Your task to perform on an android device: Check the weather Image 0: 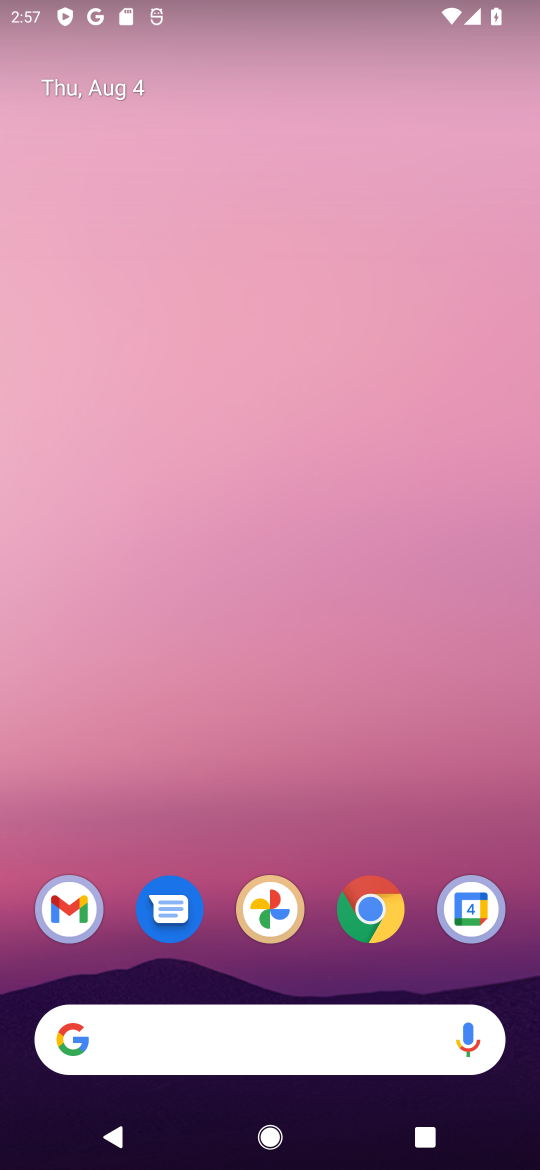
Step 0: click (197, 1035)
Your task to perform on an android device: Check the weather Image 1: 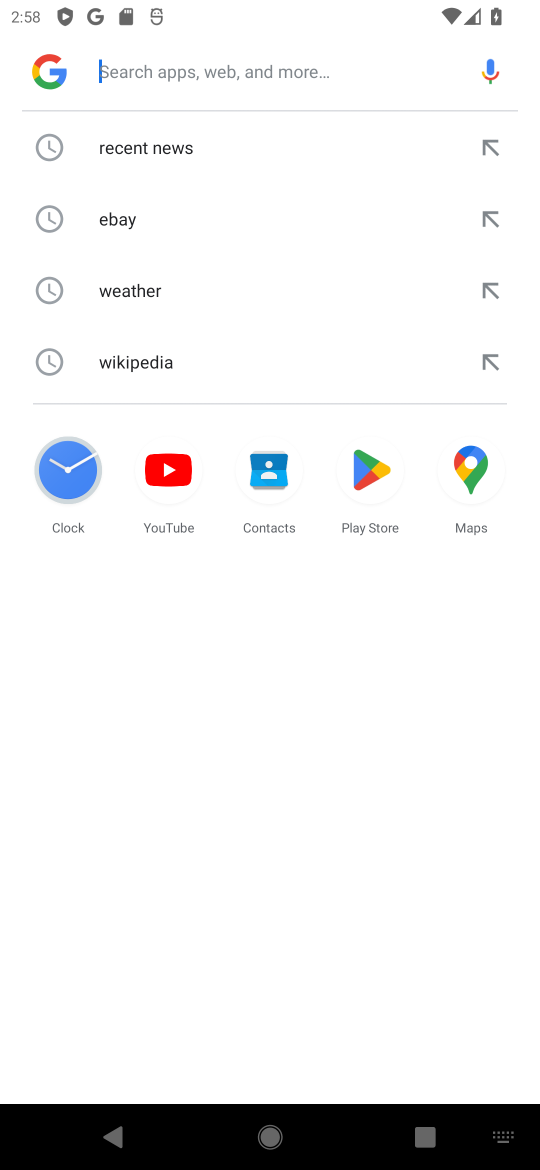
Step 1: click (136, 300)
Your task to perform on an android device: Check the weather Image 2: 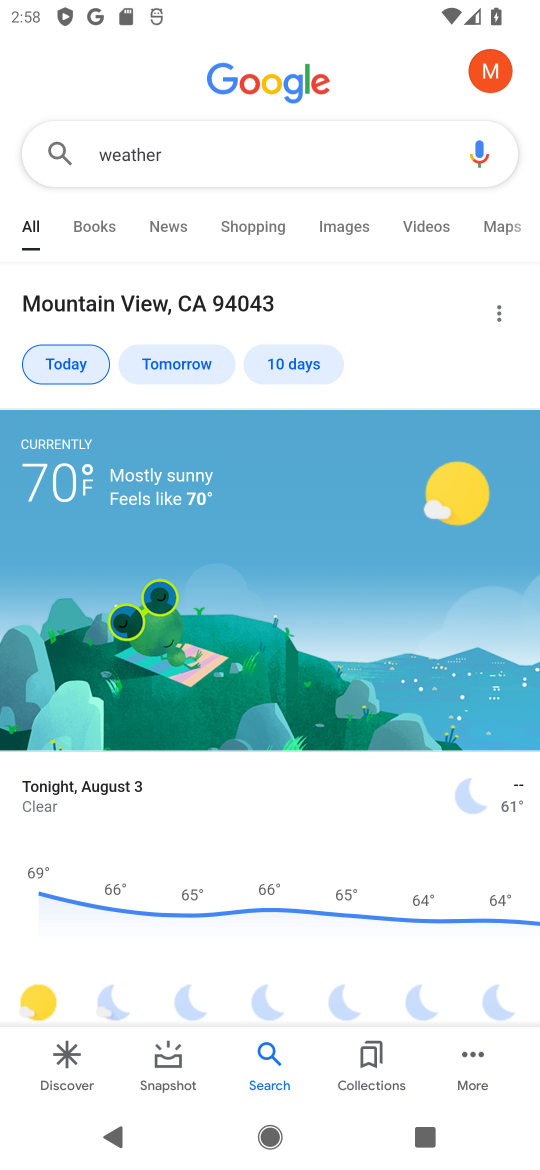
Step 2: task complete